Your task to perform on an android device: Open the stopwatch Image 0: 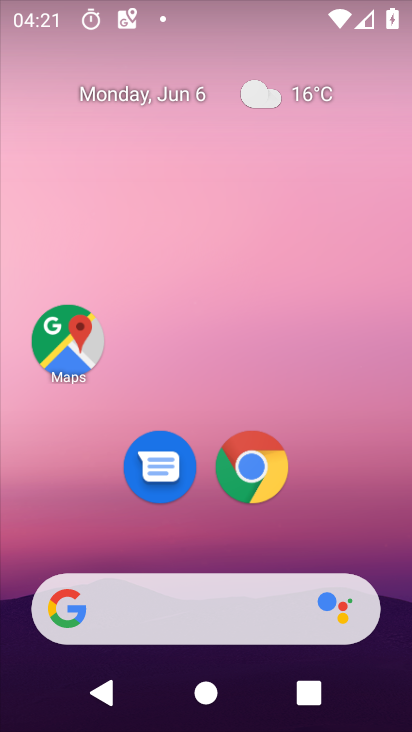
Step 0: press home button
Your task to perform on an android device: Open the stopwatch Image 1: 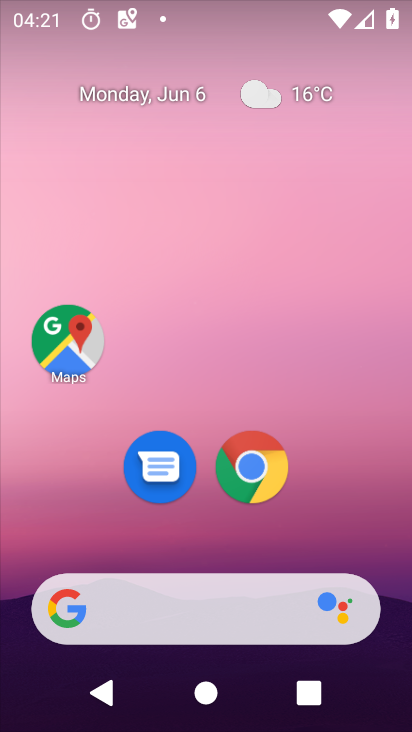
Step 1: drag from (216, 538) to (261, 5)
Your task to perform on an android device: Open the stopwatch Image 2: 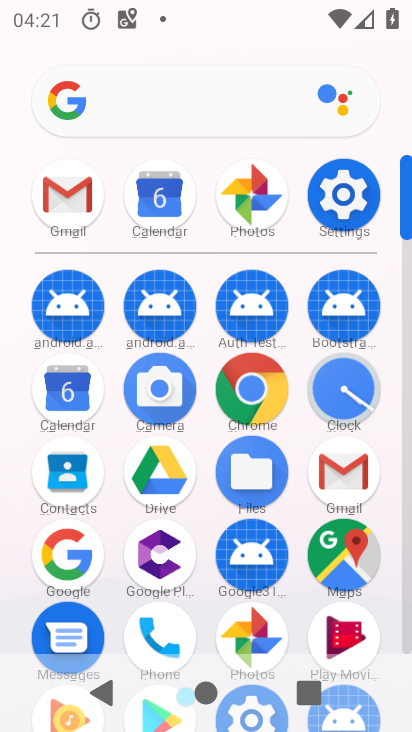
Step 2: click (342, 384)
Your task to perform on an android device: Open the stopwatch Image 3: 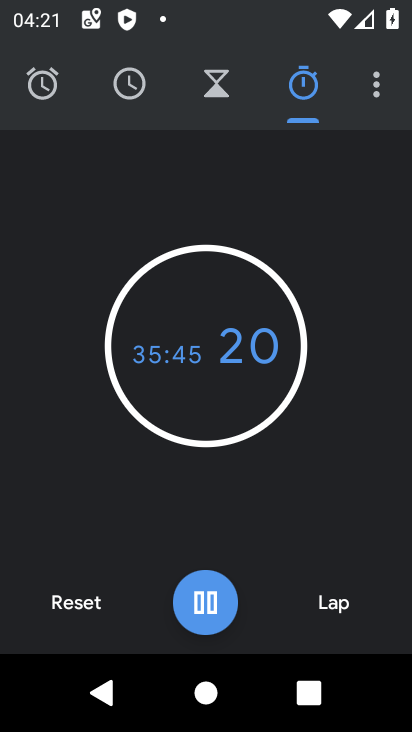
Step 3: click (69, 601)
Your task to perform on an android device: Open the stopwatch Image 4: 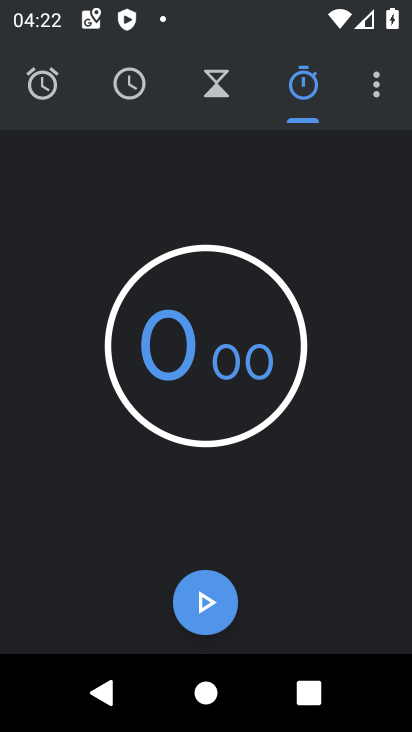
Step 4: task complete